Your task to perform on an android device: delete location history Image 0: 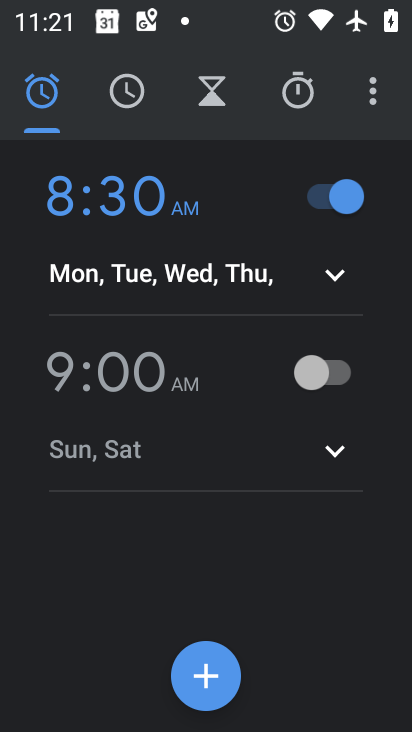
Step 0: press home button
Your task to perform on an android device: delete location history Image 1: 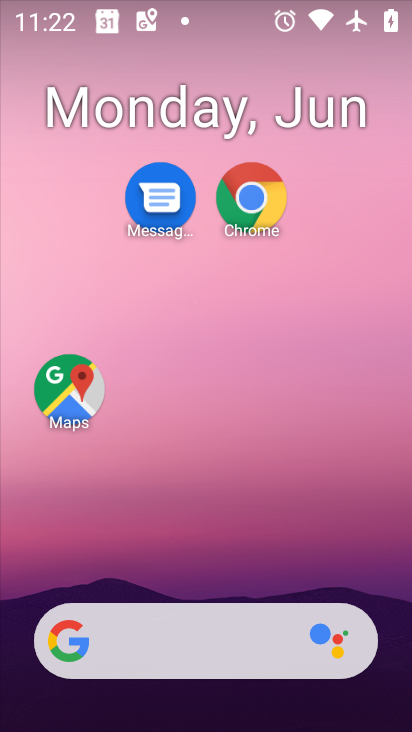
Step 1: drag from (206, 587) to (207, 204)
Your task to perform on an android device: delete location history Image 2: 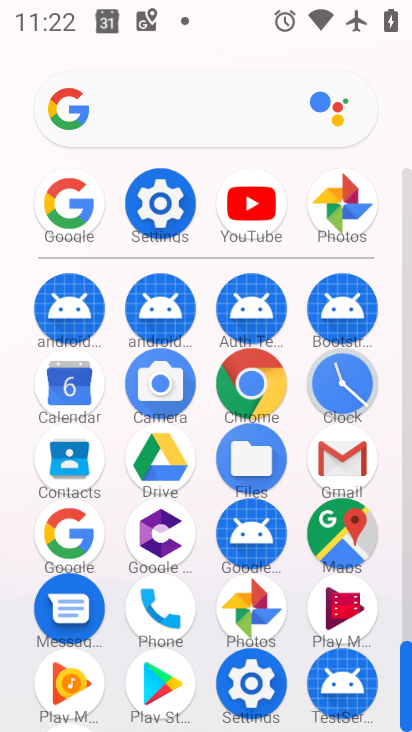
Step 2: click (325, 546)
Your task to perform on an android device: delete location history Image 3: 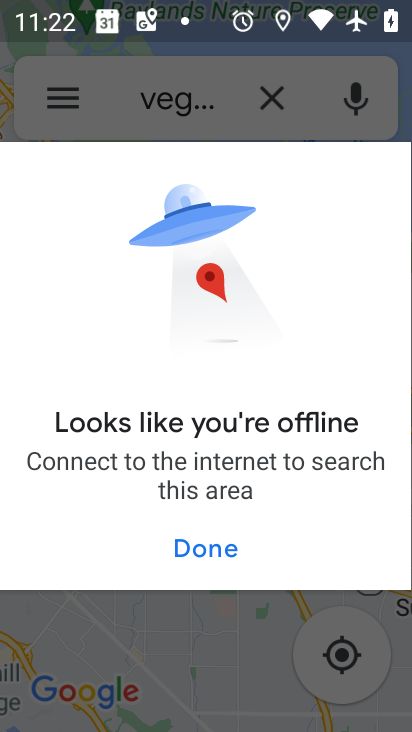
Step 3: click (179, 557)
Your task to perform on an android device: delete location history Image 4: 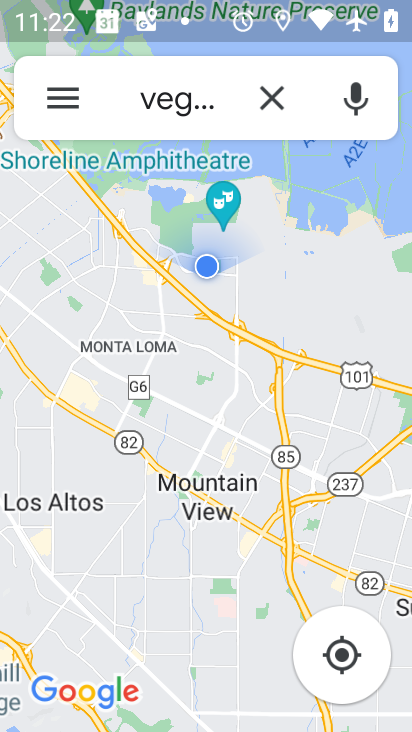
Step 4: click (55, 101)
Your task to perform on an android device: delete location history Image 5: 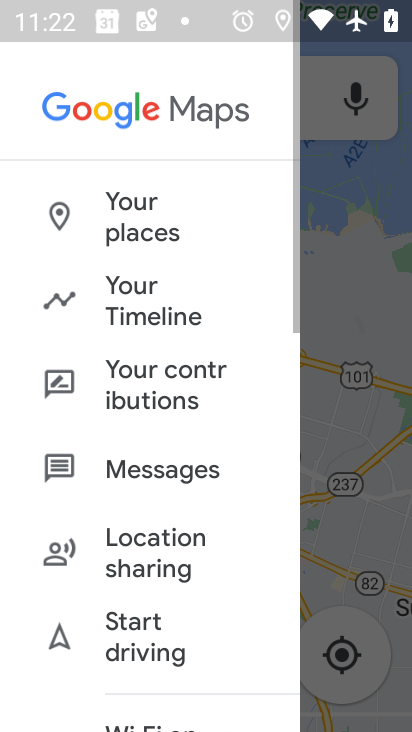
Step 5: drag from (136, 567) to (137, 412)
Your task to perform on an android device: delete location history Image 6: 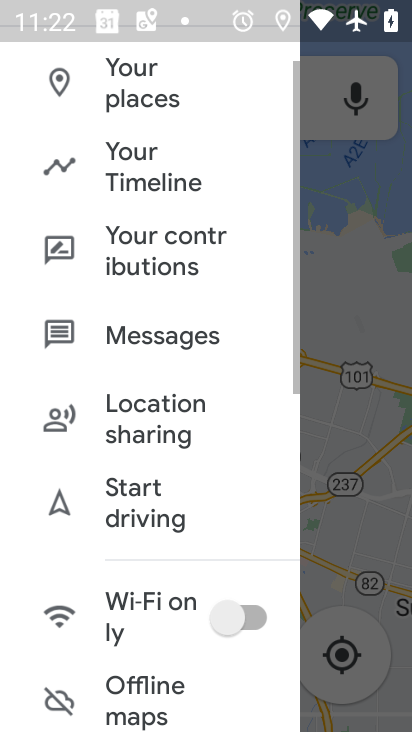
Step 6: drag from (91, 645) to (113, 406)
Your task to perform on an android device: delete location history Image 7: 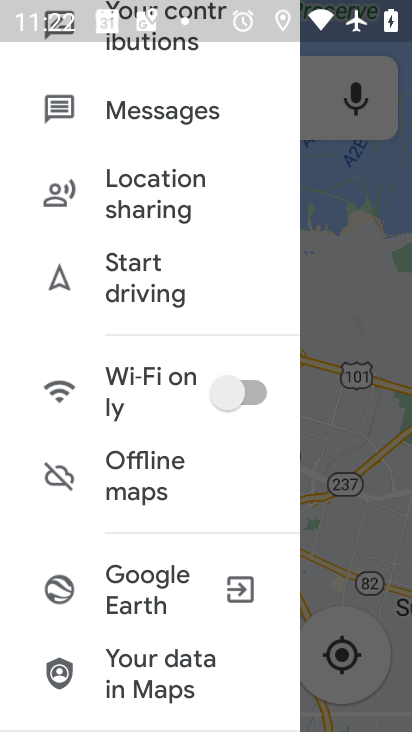
Step 7: drag from (151, 164) to (151, 610)
Your task to perform on an android device: delete location history Image 8: 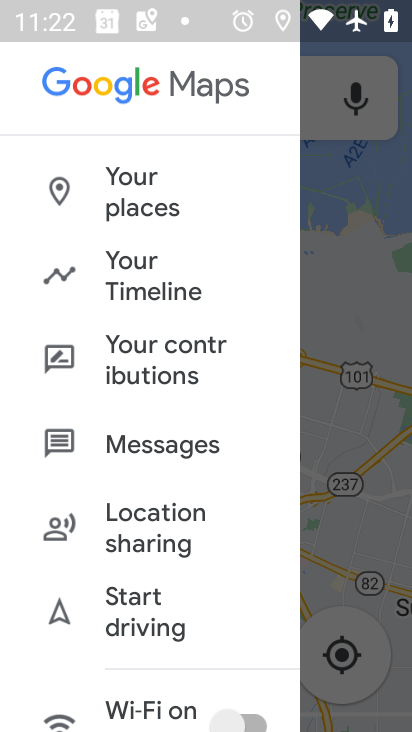
Step 8: click (136, 268)
Your task to perform on an android device: delete location history Image 9: 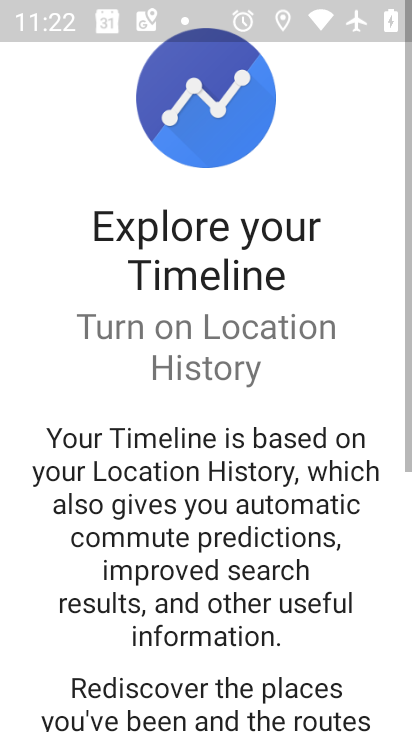
Step 9: drag from (226, 566) to (267, 197)
Your task to perform on an android device: delete location history Image 10: 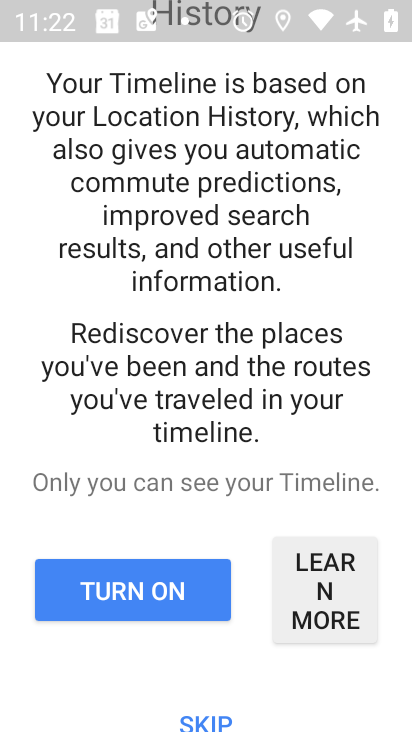
Step 10: click (191, 572)
Your task to perform on an android device: delete location history Image 11: 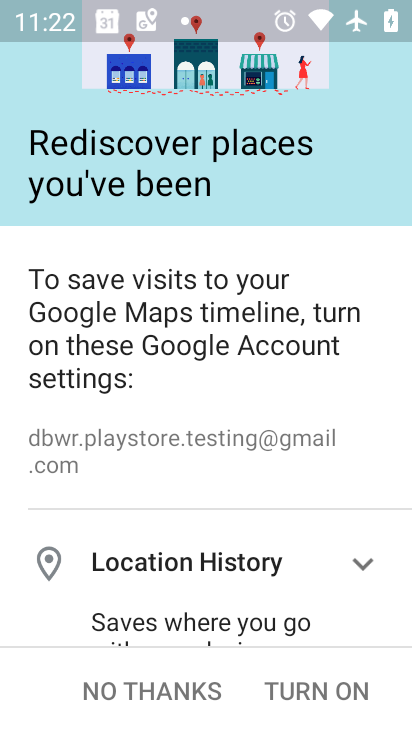
Step 11: drag from (285, 619) to (285, 248)
Your task to perform on an android device: delete location history Image 12: 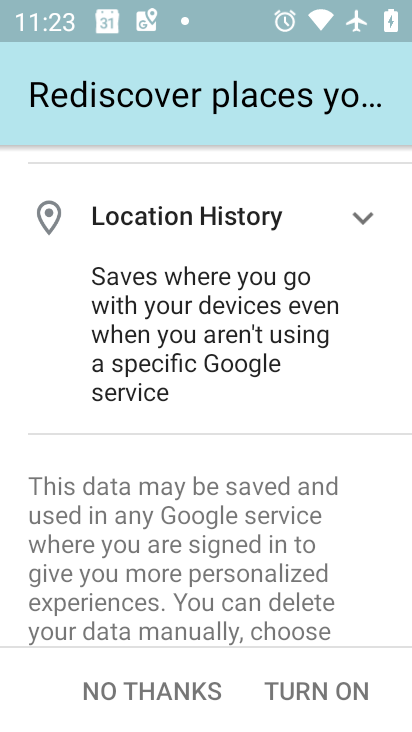
Step 12: drag from (270, 567) to (278, 284)
Your task to perform on an android device: delete location history Image 13: 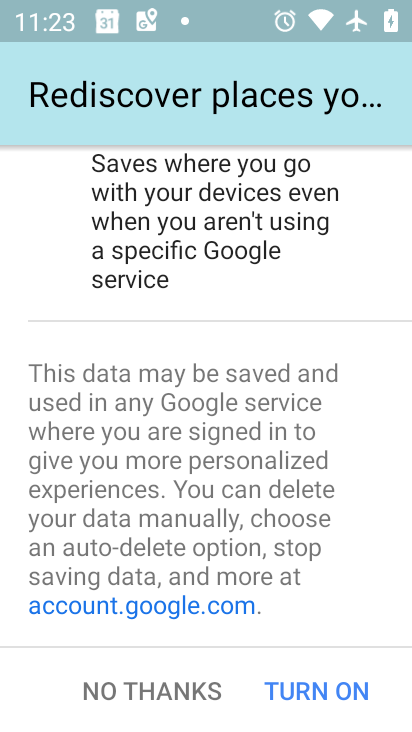
Step 13: click (300, 680)
Your task to perform on an android device: delete location history Image 14: 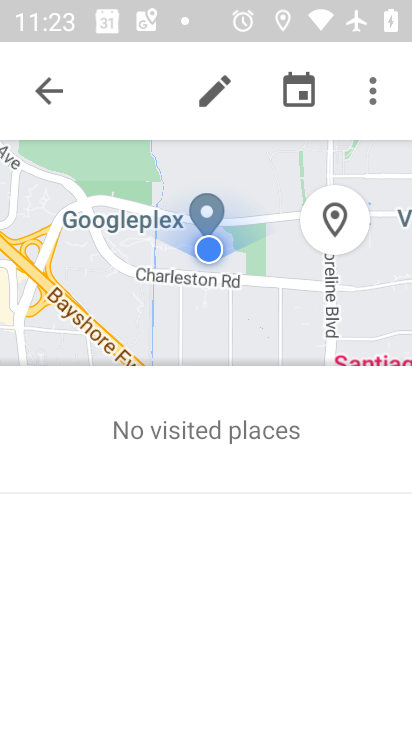
Step 14: click (366, 106)
Your task to perform on an android device: delete location history Image 15: 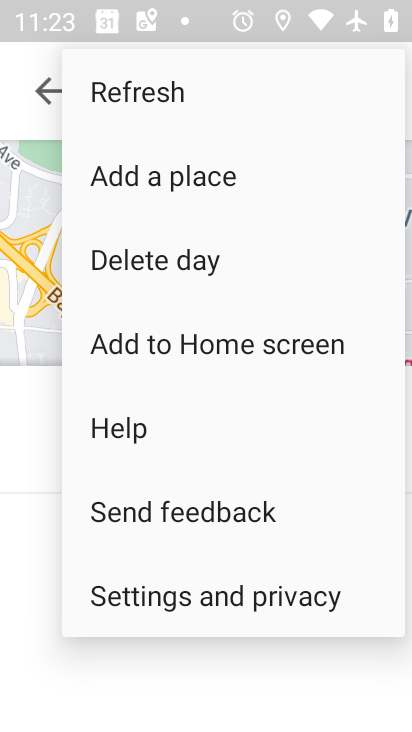
Step 15: drag from (292, 542) to (309, 291)
Your task to perform on an android device: delete location history Image 16: 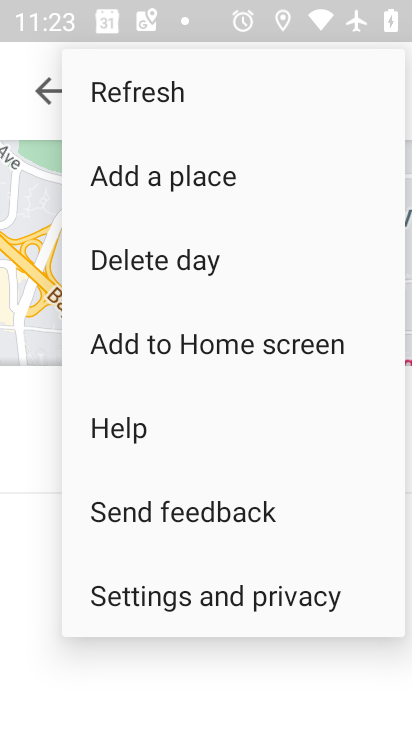
Step 16: click (260, 597)
Your task to perform on an android device: delete location history Image 17: 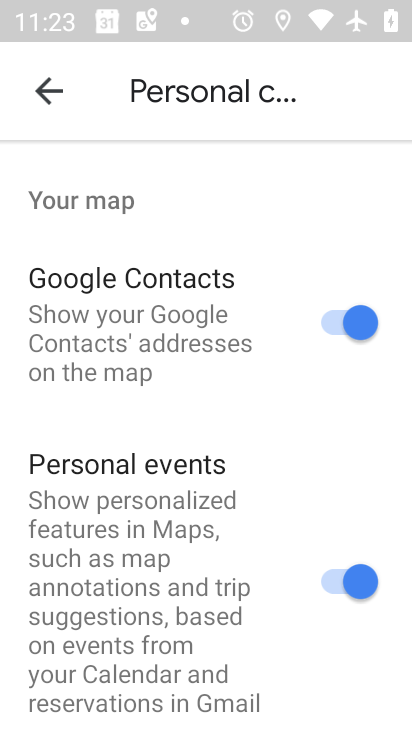
Step 17: drag from (268, 602) to (267, 283)
Your task to perform on an android device: delete location history Image 18: 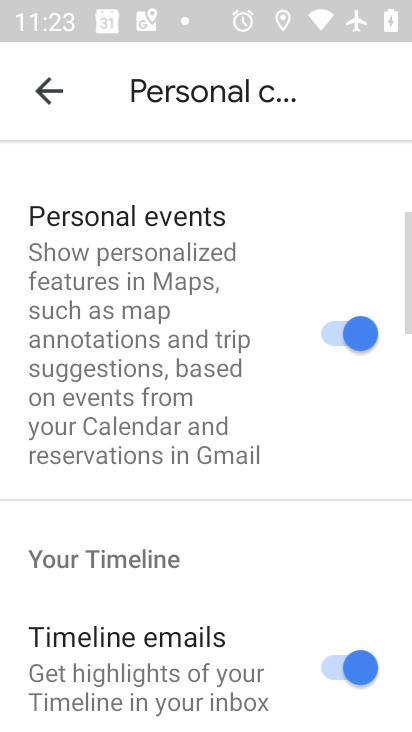
Step 18: drag from (253, 559) to (237, 297)
Your task to perform on an android device: delete location history Image 19: 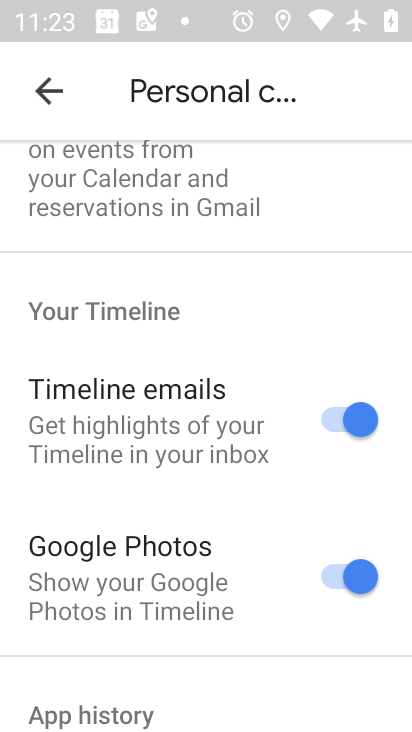
Step 19: drag from (290, 591) to (263, 316)
Your task to perform on an android device: delete location history Image 20: 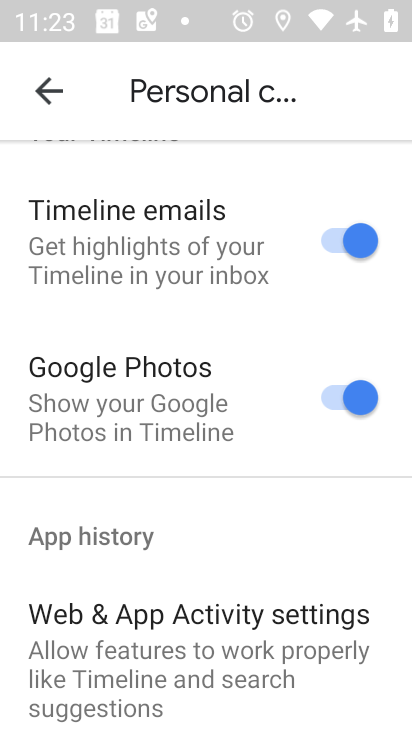
Step 20: drag from (258, 599) to (236, 249)
Your task to perform on an android device: delete location history Image 21: 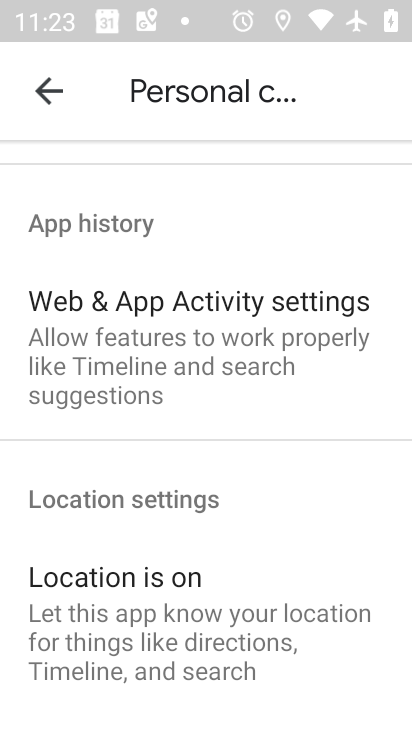
Step 21: drag from (227, 590) to (234, 287)
Your task to perform on an android device: delete location history Image 22: 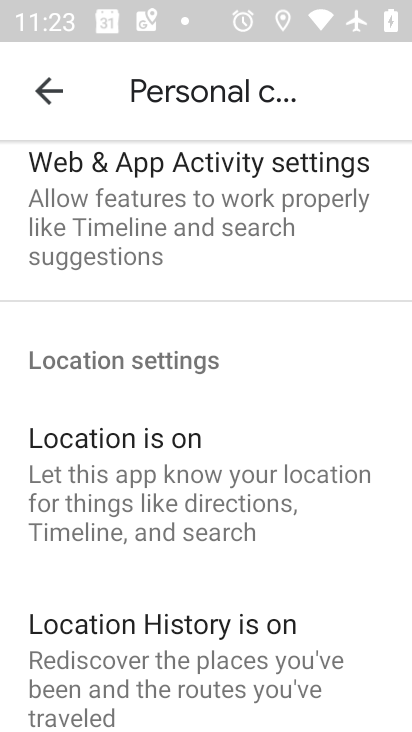
Step 22: drag from (229, 525) to (239, 242)
Your task to perform on an android device: delete location history Image 23: 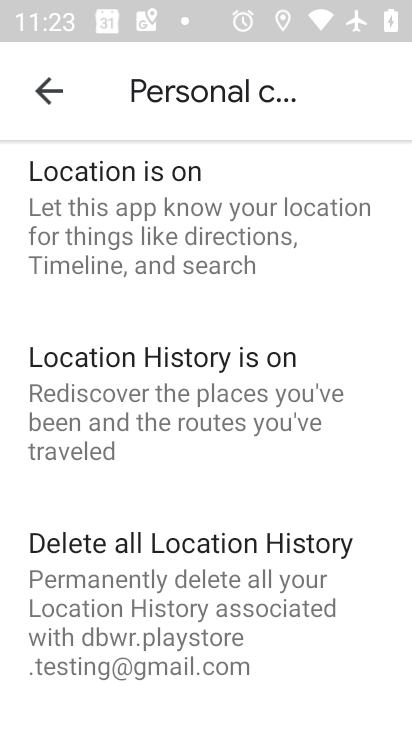
Step 23: click (238, 534)
Your task to perform on an android device: delete location history Image 24: 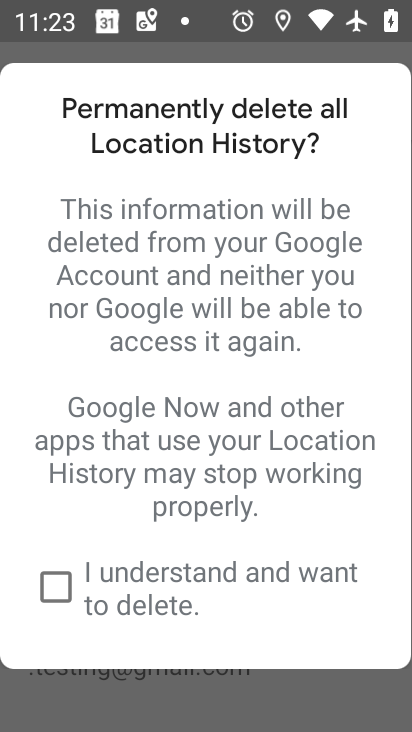
Step 24: click (150, 568)
Your task to perform on an android device: delete location history Image 25: 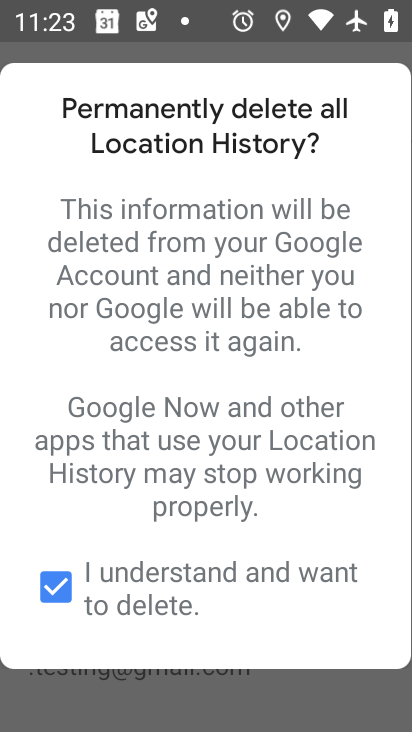
Step 25: task complete